Your task to perform on an android device: Go to Reddit.com Image 0: 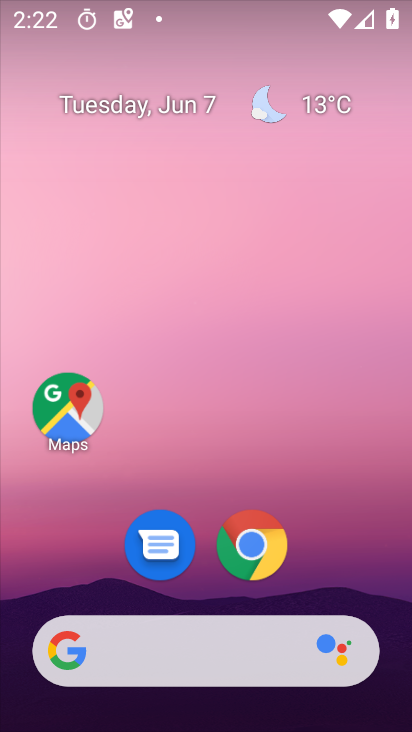
Step 0: press home button
Your task to perform on an android device: Go to Reddit.com Image 1: 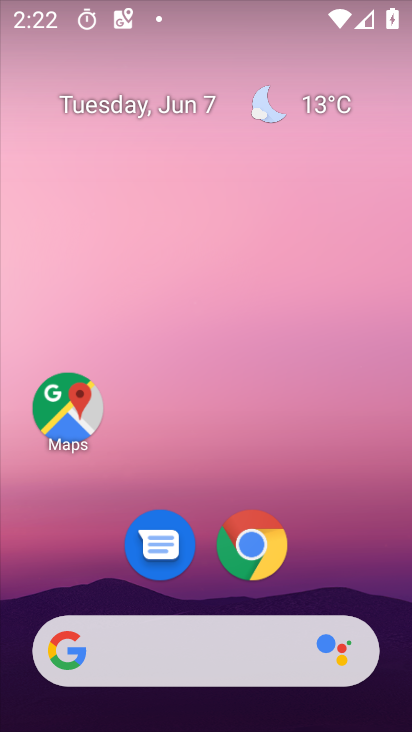
Step 1: click (265, 544)
Your task to perform on an android device: Go to Reddit.com Image 2: 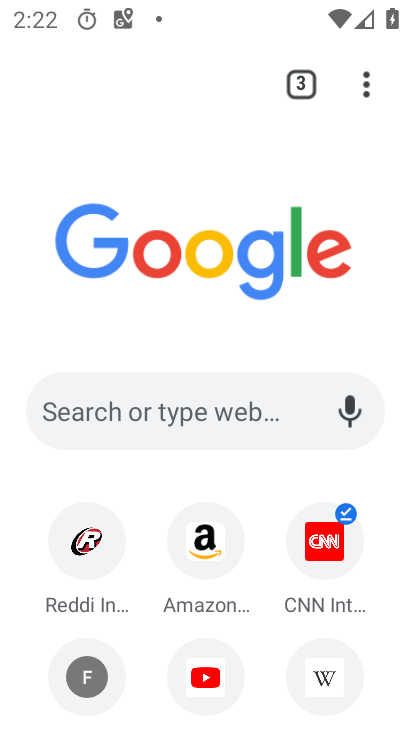
Step 2: click (170, 406)
Your task to perform on an android device: Go to Reddit.com Image 3: 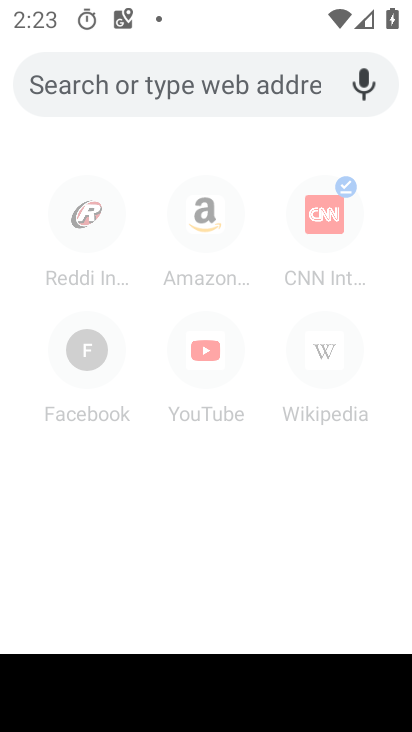
Step 3: type "Reddit.com"
Your task to perform on an android device: Go to Reddit.com Image 4: 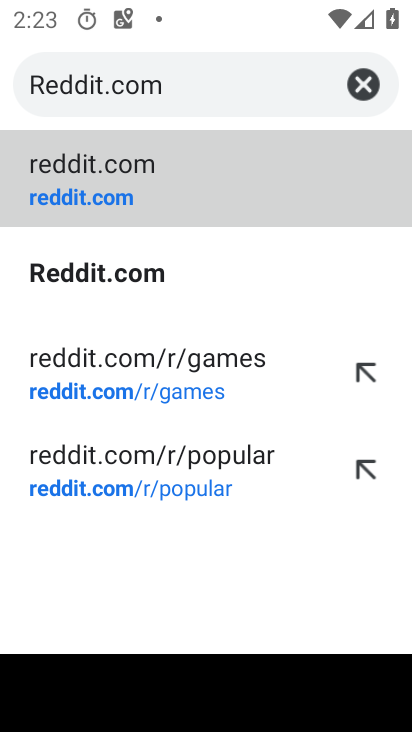
Step 4: click (141, 190)
Your task to perform on an android device: Go to Reddit.com Image 5: 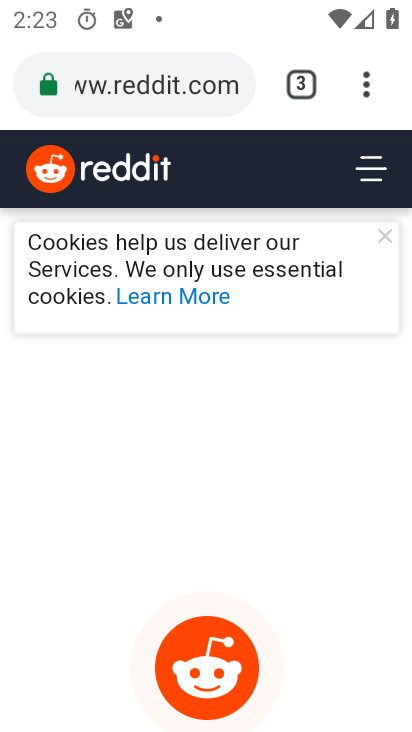
Step 5: task complete